Your task to perform on an android device: Go to network settings Image 0: 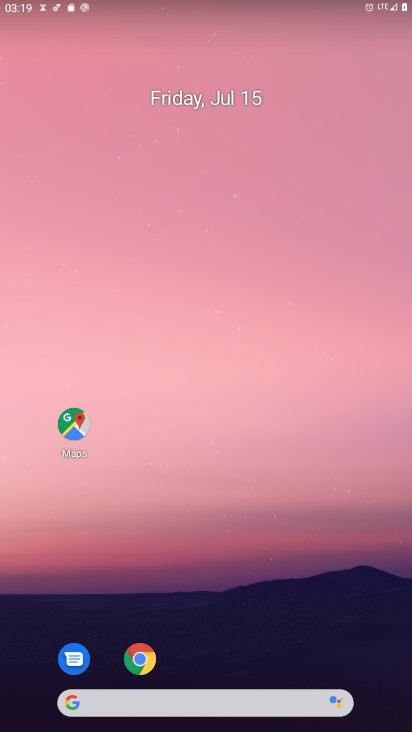
Step 0: drag from (177, 698) to (209, 233)
Your task to perform on an android device: Go to network settings Image 1: 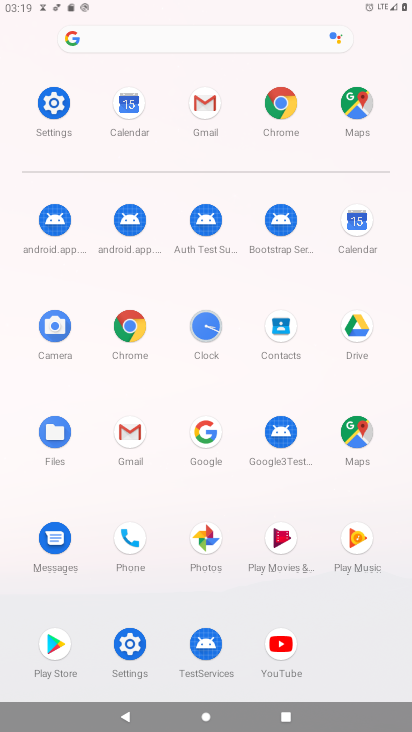
Step 1: click (46, 98)
Your task to perform on an android device: Go to network settings Image 2: 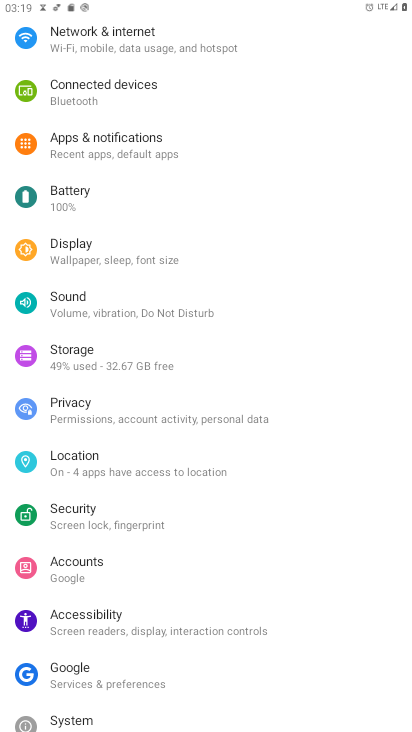
Step 2: click (111, 52)
Your task to perform on an android device: Go to network settings Image 3: 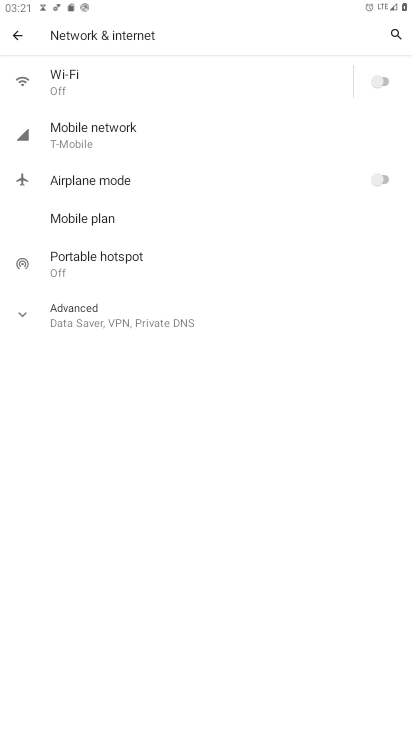
Step 3: task complete